Your task to perform on an android device: Search for razer kraken on target, select the first entry, and add it to the cart. Image 0: 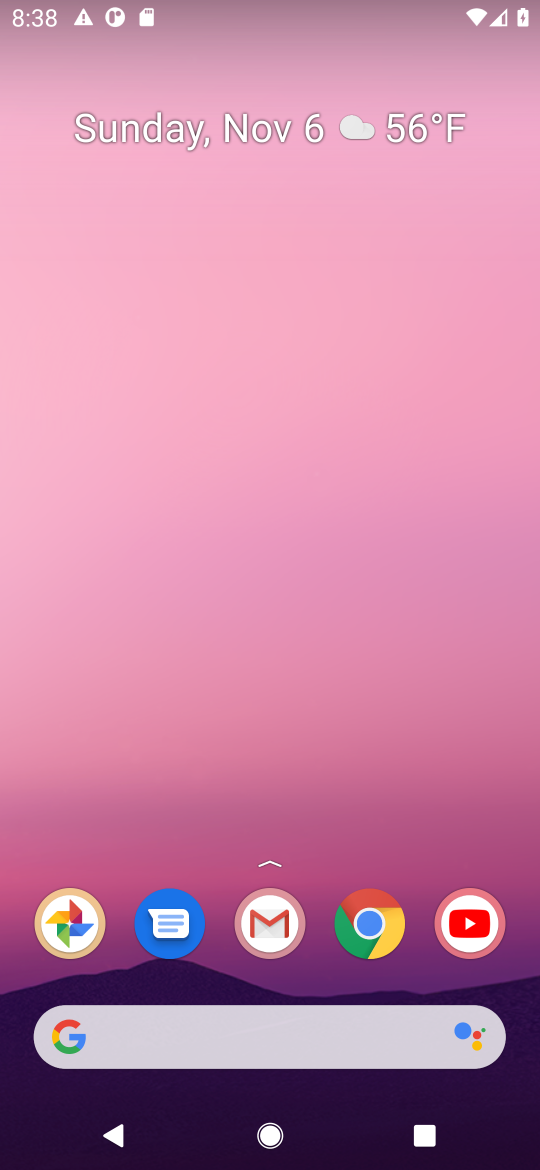
Step 0: click (388, 929)
Your task to perform on an android device: Search for razer kraken on target, select the first entry, and add it to the cart. Image 1: 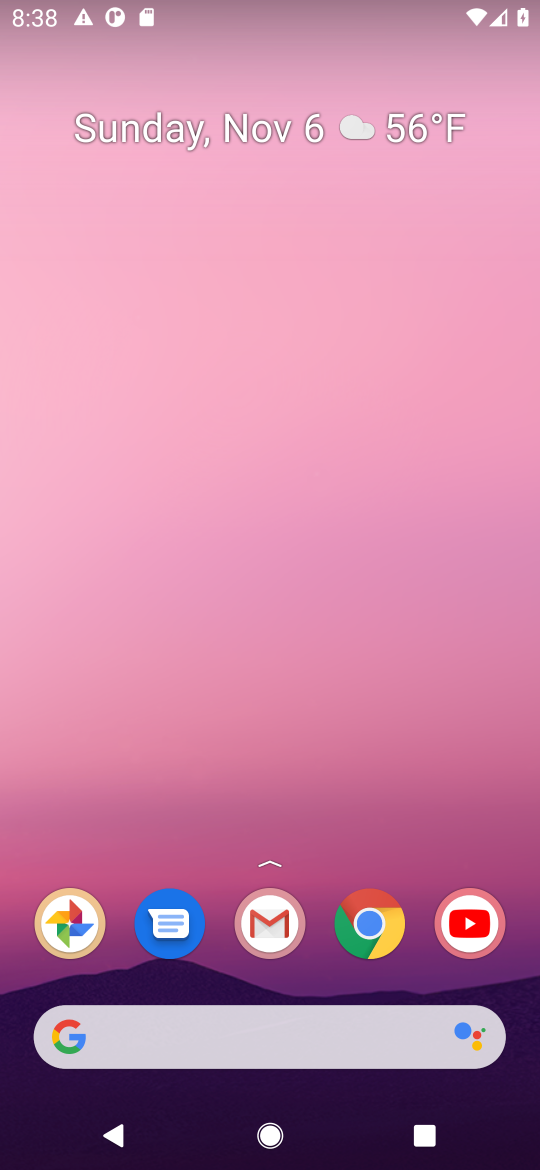
Step 1: click (373, 926)
Your task to perform on an android device: Search for razer kraken on target, select the first entry, and add it to the cart. Image 2: 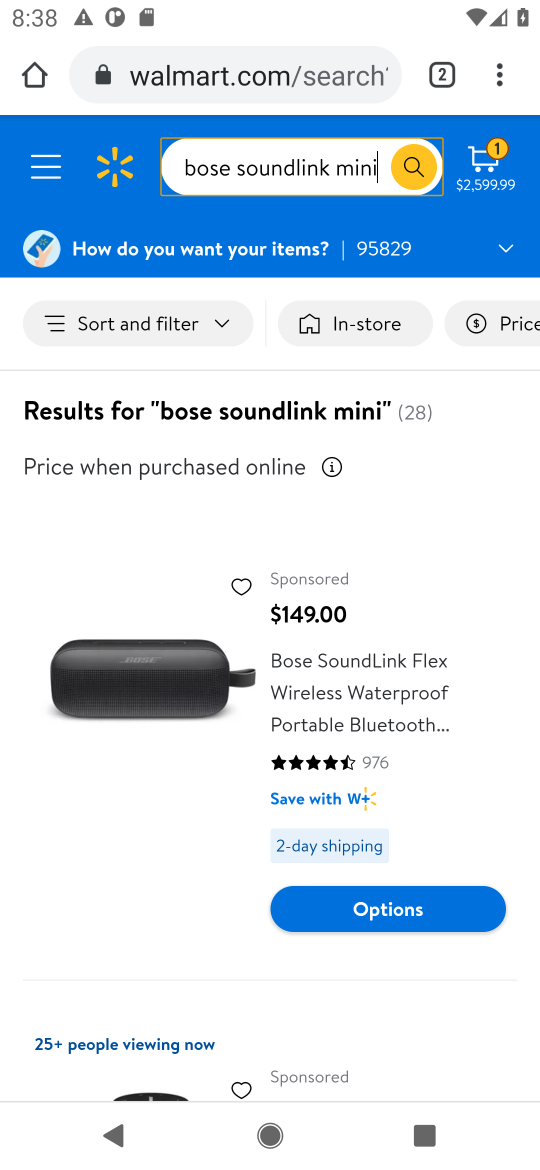
Step 2: click (221, 85)
Your task to perform on an android device: Search for razer kraken on target, select the first entry, and add it to the cart. Image 3: 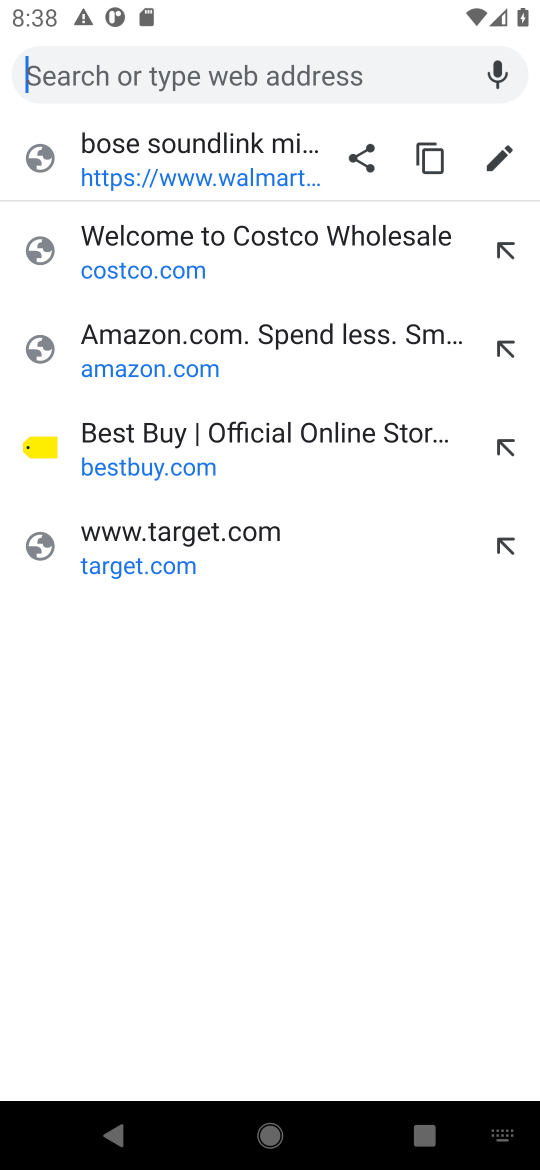
Step 3: click (131, 576)
Your task to perform on an android device: Search for razer kraken on target, select the first entry, and add it to the cart. Image 4: 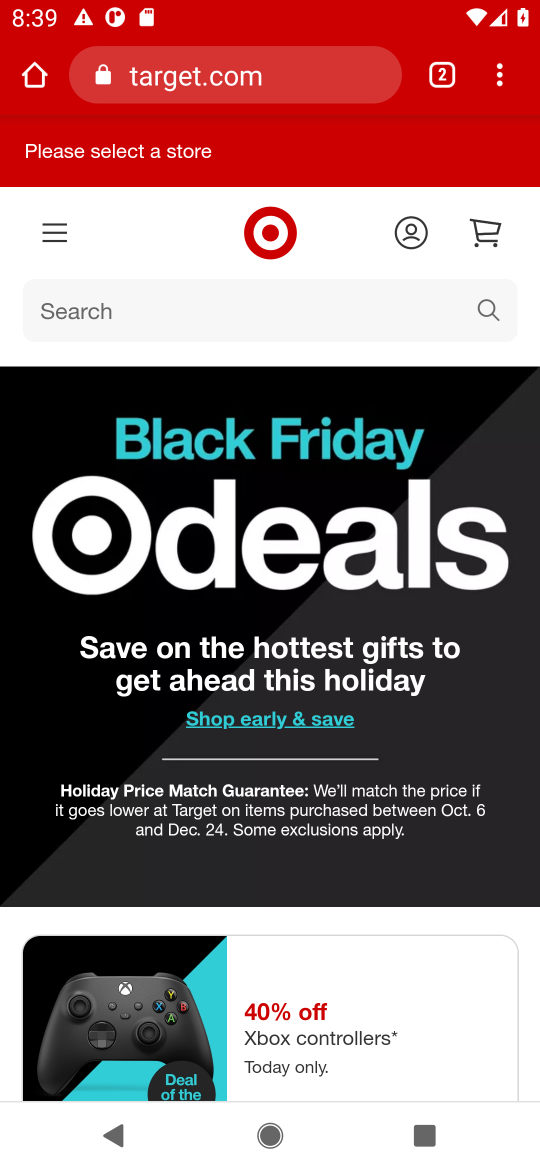
Step 4: click (492, 318)
Your task to perform on an android device: Search for razer kraken on target, select the first entry, and add it to the cart. Image 5: 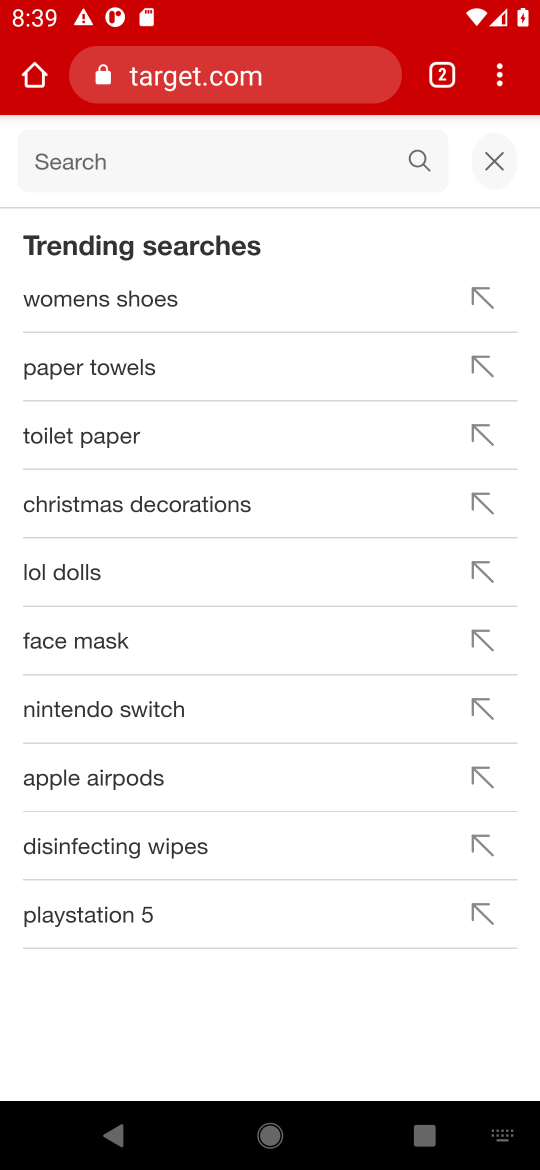
Step 5: type "razer kraken "
Your task to perform on an android device: Search for razer kraken on target, select the first entry, and add it to the cart. Image 6: 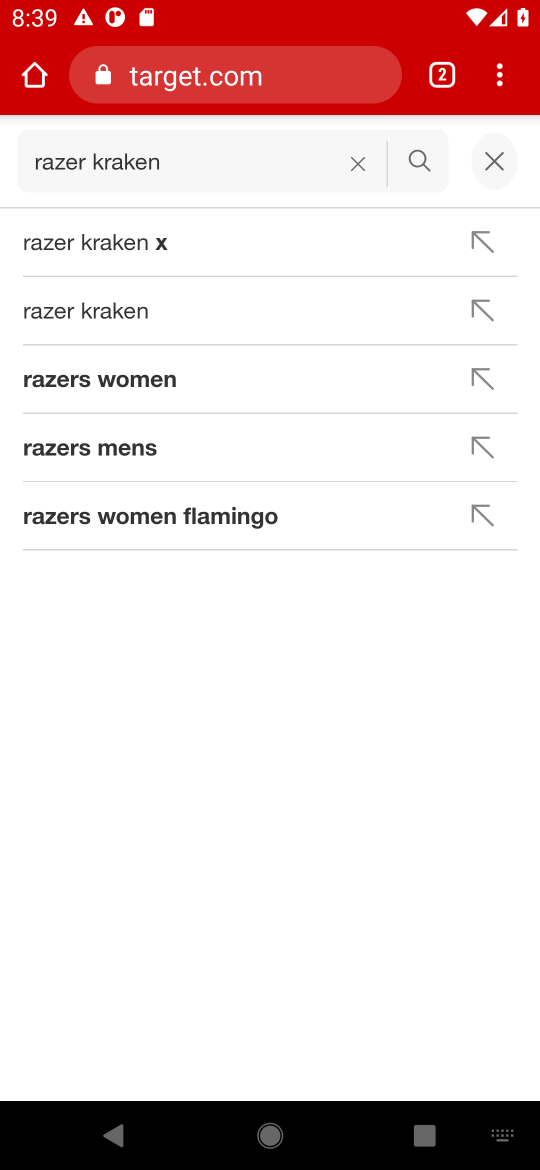
Step 6: click (102, 317)
Your task to perform on an android device: Search for razer kraken on target, select the first entry, and add it to the cart. Image 7: 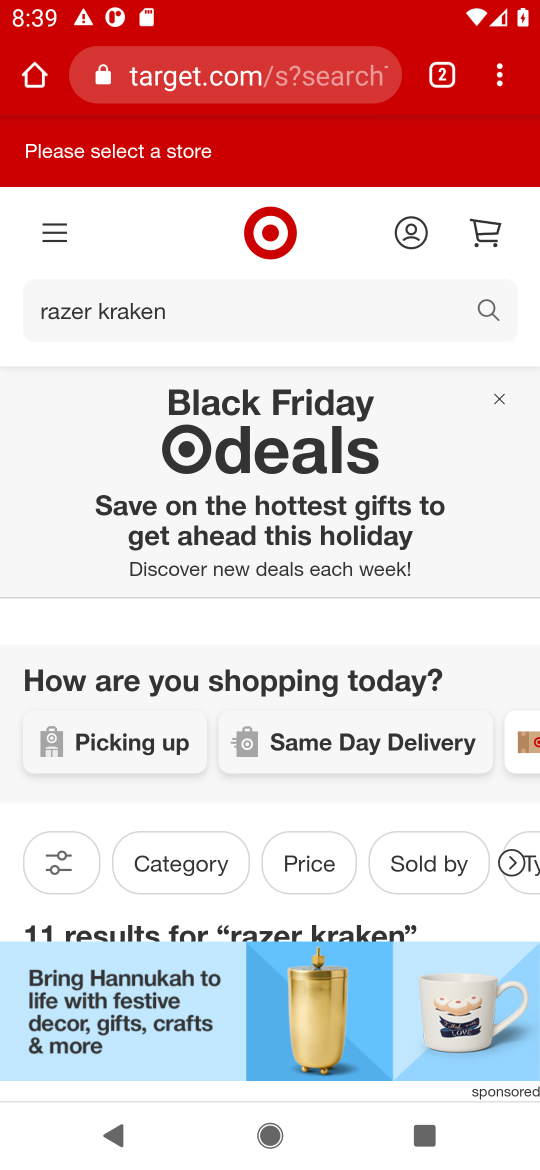
Step 7: drag from (261, 906) to (266, 367)
Your task to perform on an android device: Search for razer kraken on target, select the first entry, and add it to the cart. Image 8: 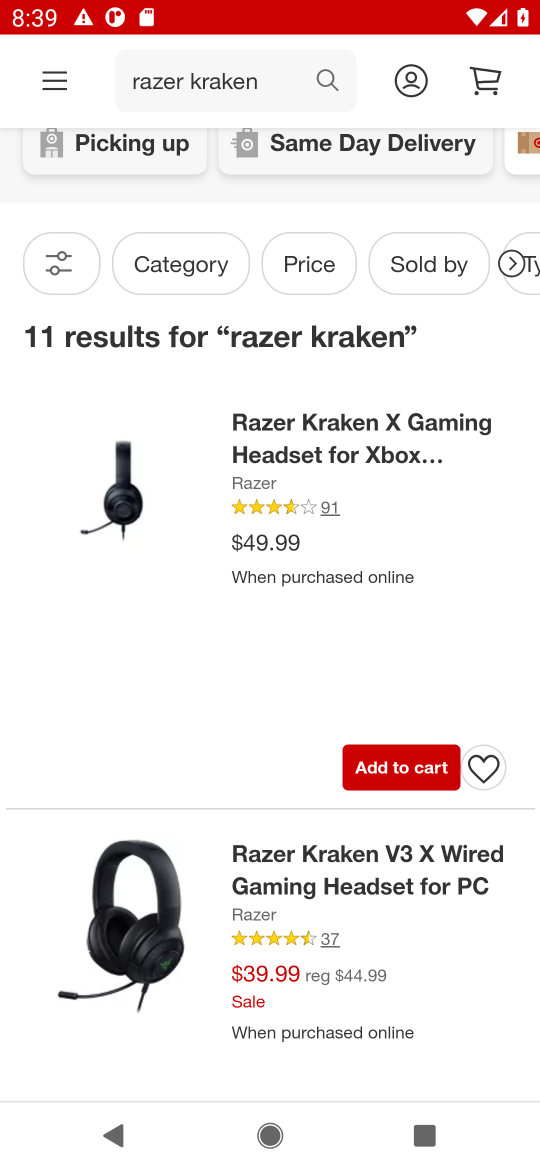
Step 8: click (404, 765)
Your task to perform on an android device: Search for razer kraken on target, select the first entry, and add it to the cart. Image 9: 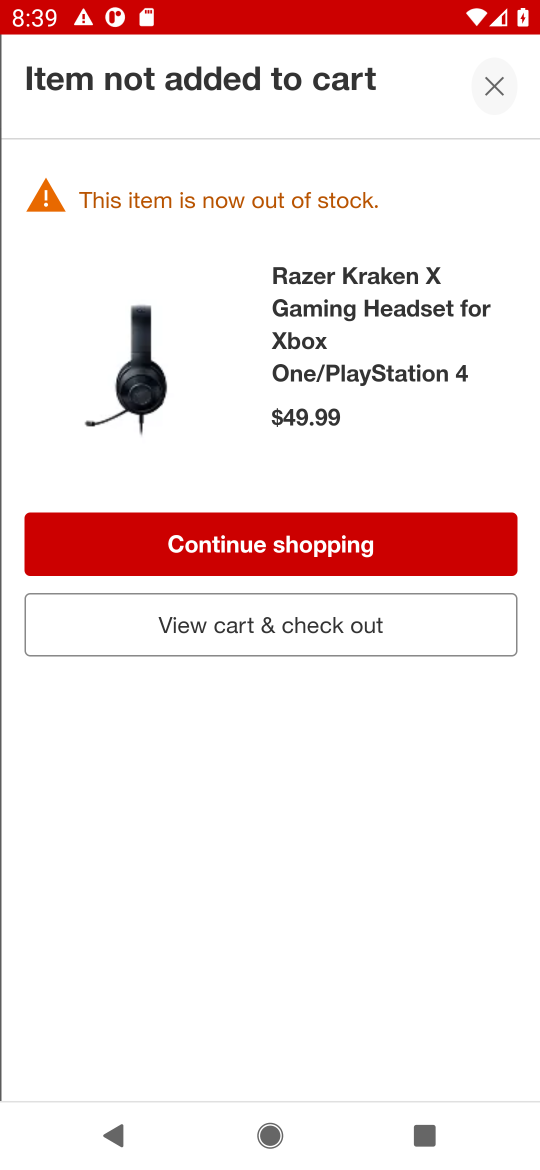
Step 9: click (283, 632)
Your task to perform on an android device: Search for razer kraken on target, select the first entry, and add it to the cart. Image 10: 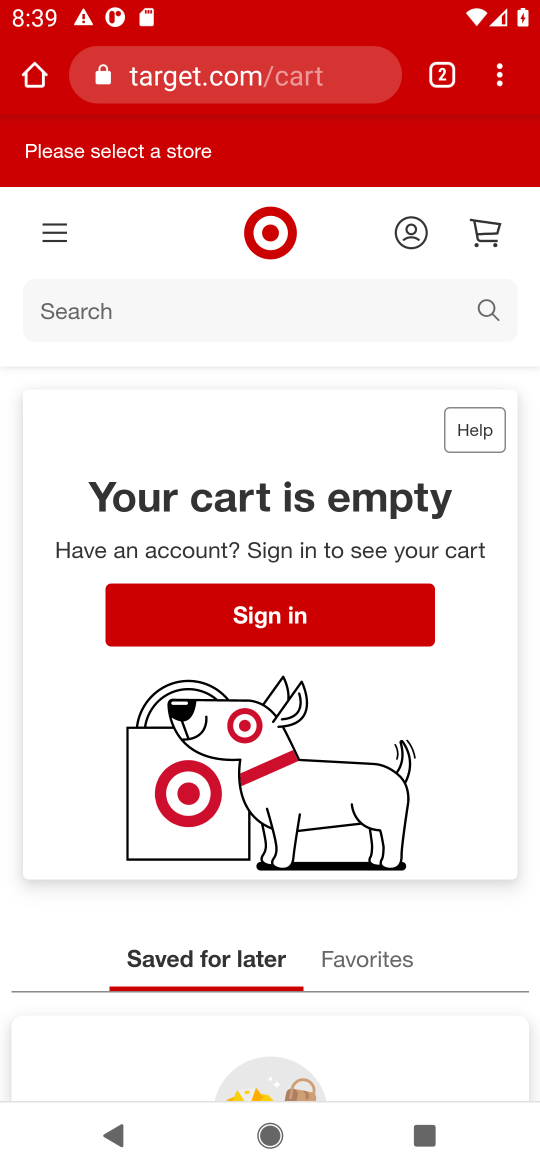
Step 10: task complete